Your task to perform on an android device: open wifi settings Image 0: 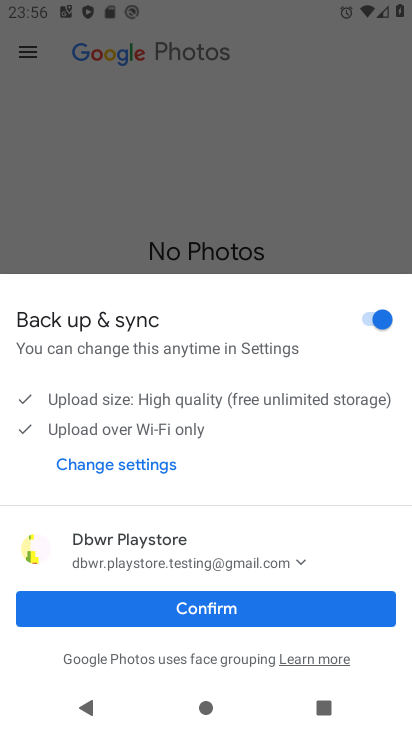
Step 0: press home button
Your task to perform on an android device: open wifi settings Image 1: 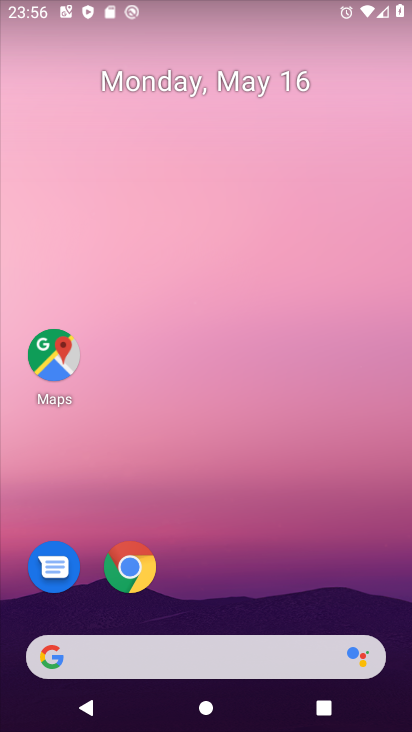
Step 1: drag from (233, 526) to (193, 120)
Your task to perform on an android device: open wifi settings Image 2: 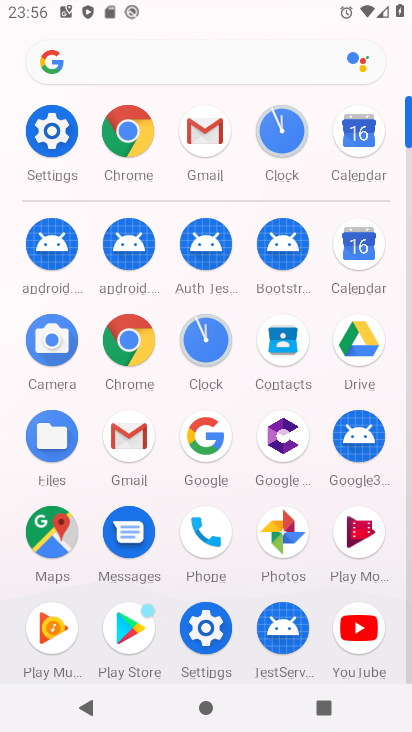
Step 2: click (51, 129)
Your task to perform on an android device: open wifi settings Image 3: 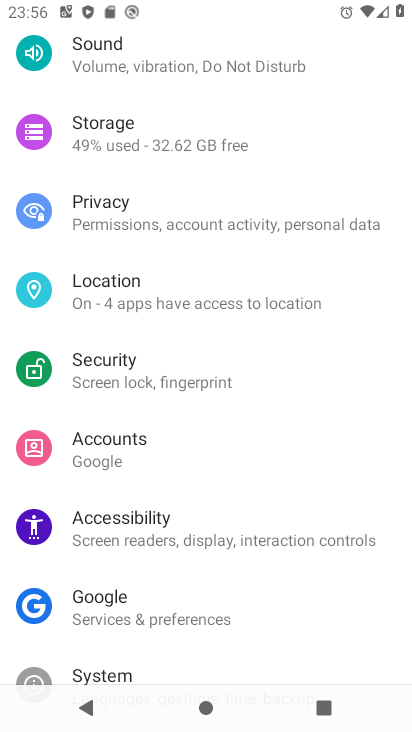
Step 3: drag from (200, 92) to (237, 428)
Your task to perform on an android device: open wifi settings Image 4: 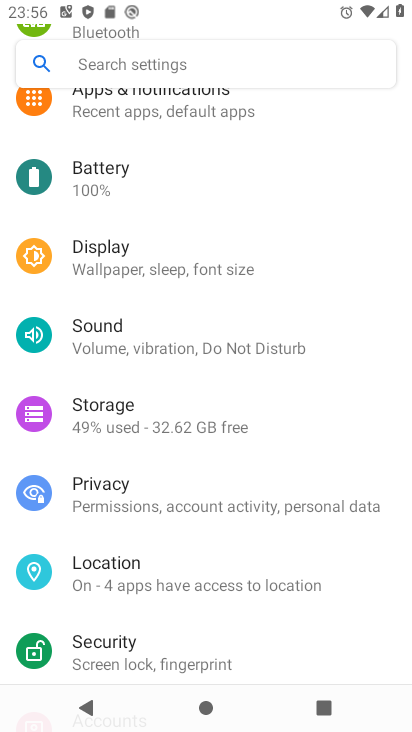
Step 4: drag from (161, 161) to (159, 458)
Your task to perform on an android device: open wifi settings Image 5: 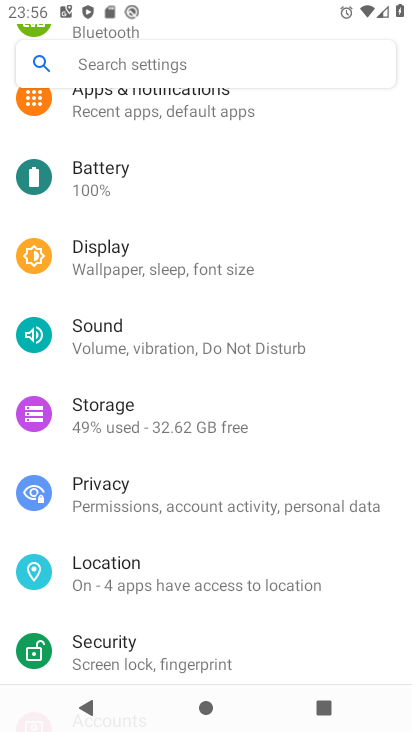
Step 5: drag from (203, 218) to (144, 578)
Your task to perform on an android device: open wifi settings Image 6: 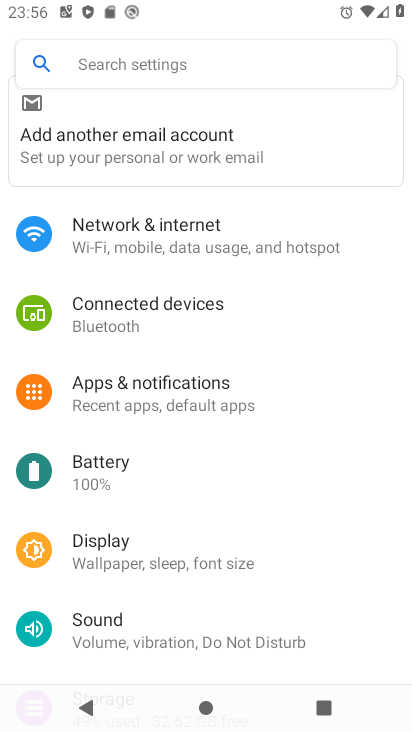
Step 6: click (159, 236)
Your task to perform on an android device: open wifi settings Image 7: 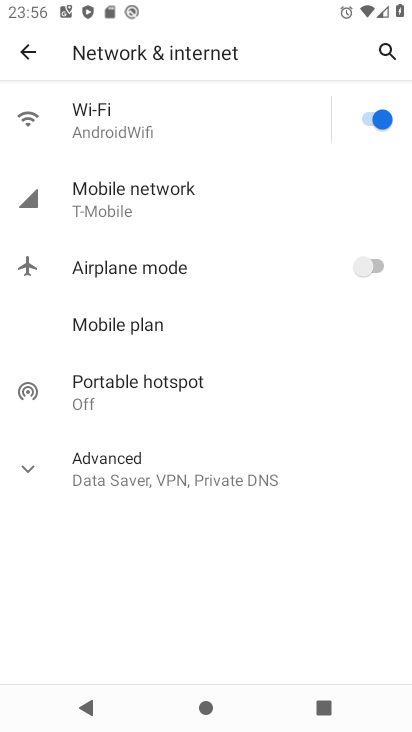
Step 7: task complete